Your task to perform on an android device: turn on translation in the chrome app Image 0: 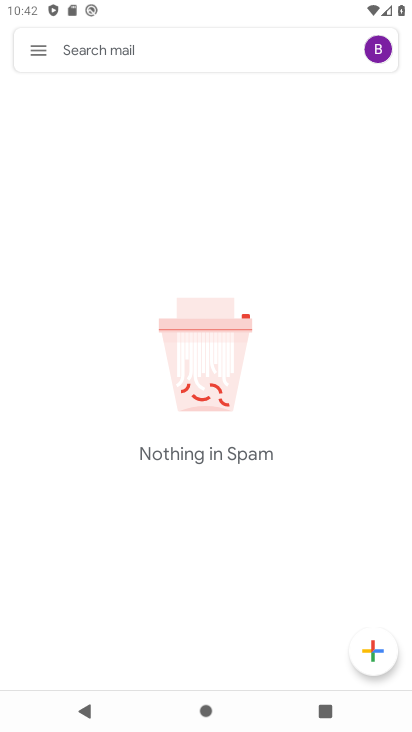
Step 0: press home button
Your task to perform on an android device: turn on translation in the chrome app Image 1: 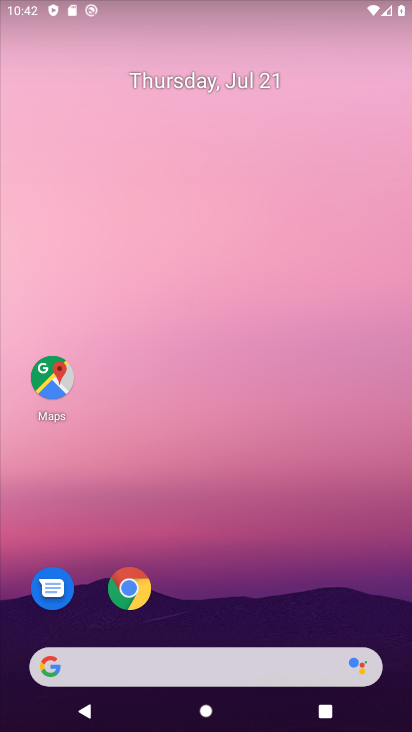
Step 1: drag from (302, 488) to (410, 195)
Your task to perform on an android device: turn on translation in the chrome app Image 2: 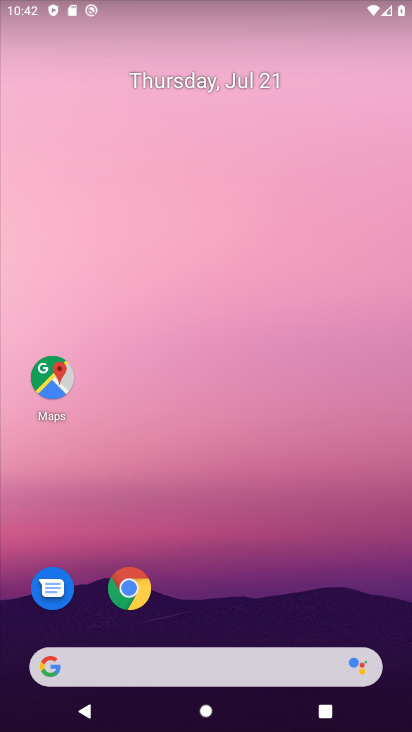
Step 2: drag from (238, 575) to (314, 3)
Your task to perform on an android device: turn on translation in the chrome app Image 3: 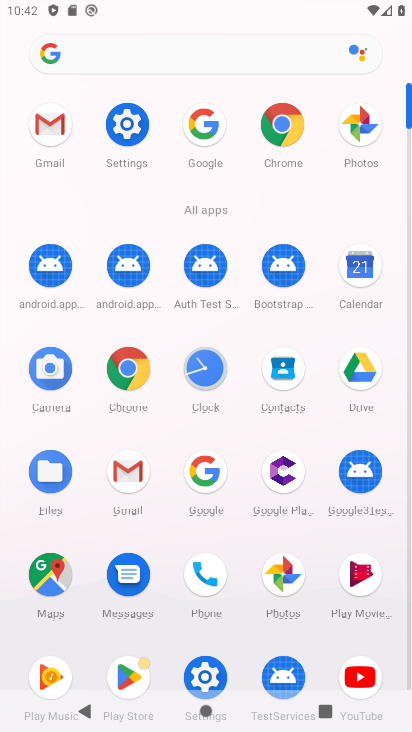
Step 3: click (297, 121)
Your task to perform on an android device: turn on translation in the chrome app Image 4: 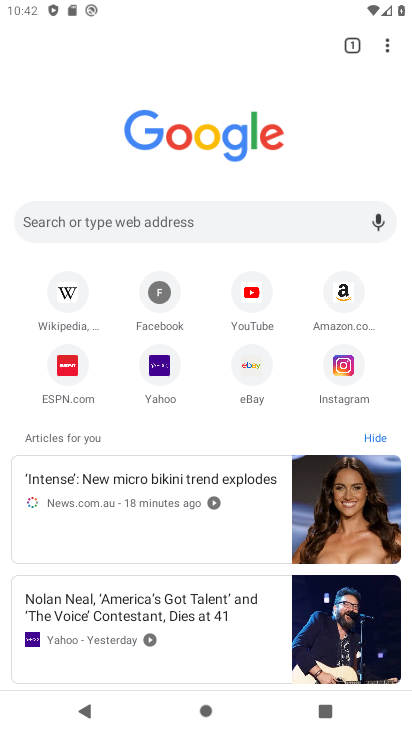
Step 4: drag from (392, 42) to (216, 386)
Your task to perform on an android device: turn on translation in the chrome app Image 5: 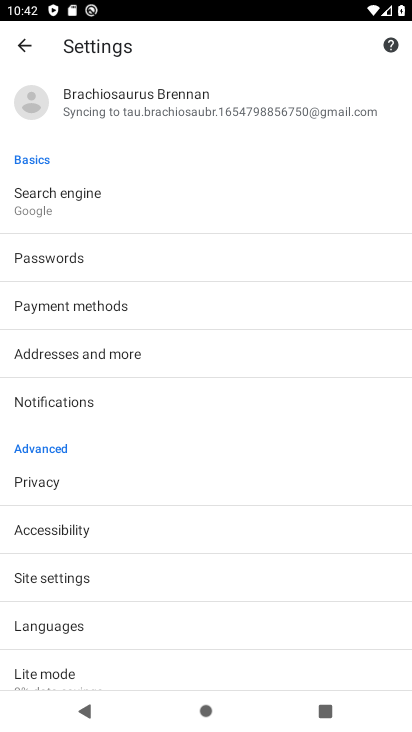
Step 5: drag from (143, 525) to (274, 104)
Your task to perform on an android device: turn on translation in the chrome app Image 6: 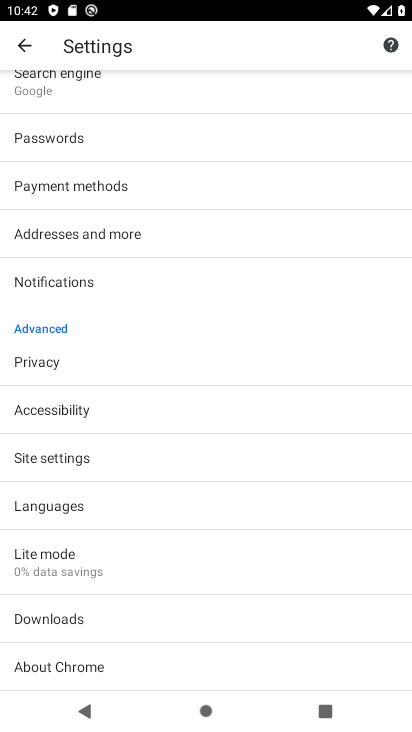
Step 6: click (96, 505)
Your task to perform on an android device: turn on translation in the chrome app Image 7: 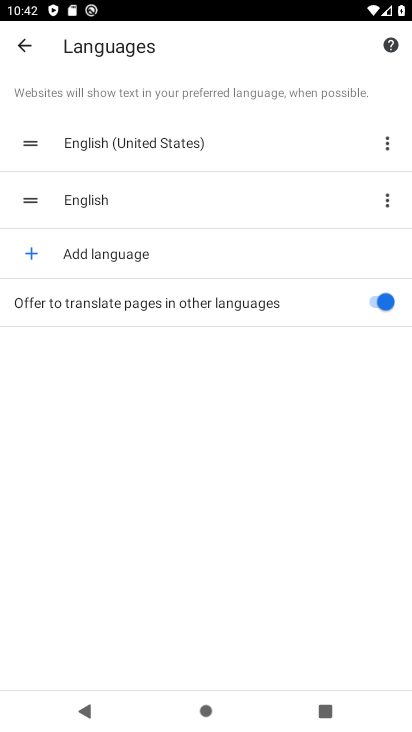
Step 7: task complete